Your task to perform on an android device: turn off wifi Image 0: 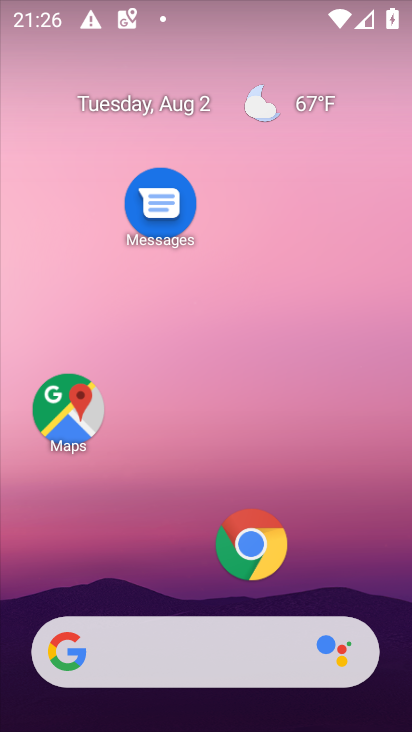
Step 0: drag from (179, 581) to (145, 160)
Your task to perform on an android device: turn off wifi Image 1: 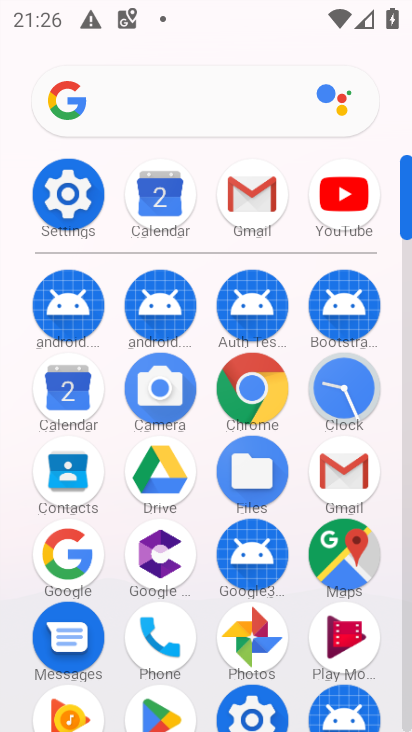
Step 1: click (62, 211)
Your task to perform on an android device: turn off wifi Image 2: 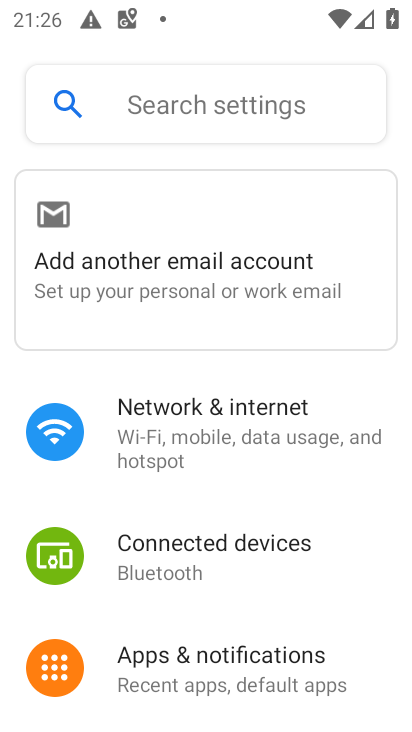
Step 2: click (200, 415)
Your task to perform on an android device: turn off wifi Image 3: 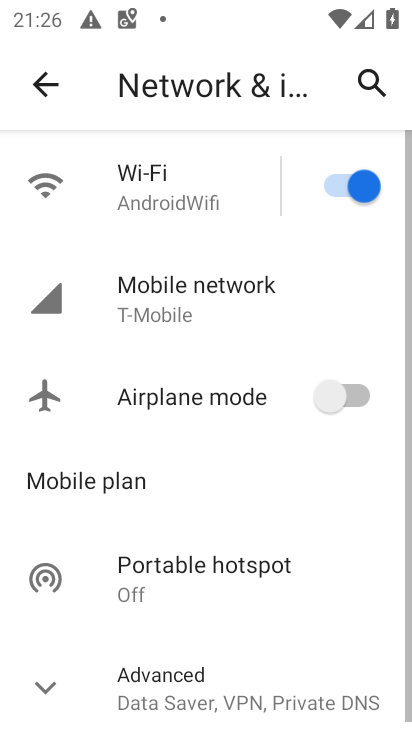
Step 3: click (348, 183)
Your task to perform on an android device: turn off wifi Image 4: 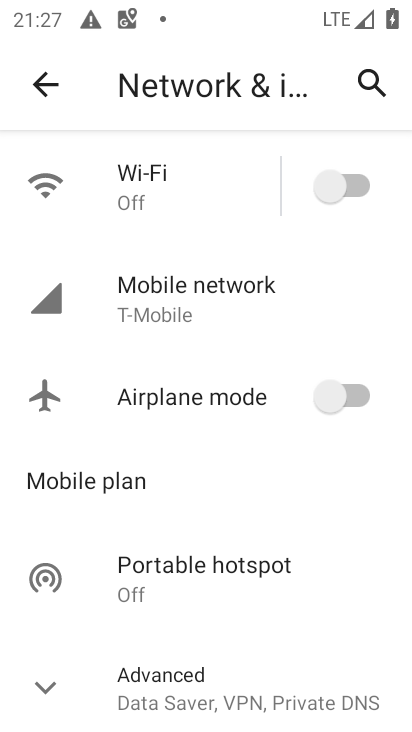
Step 4: task complete